Your task to perform on an android device: Open calendar and show me the second week of next month Image 0: 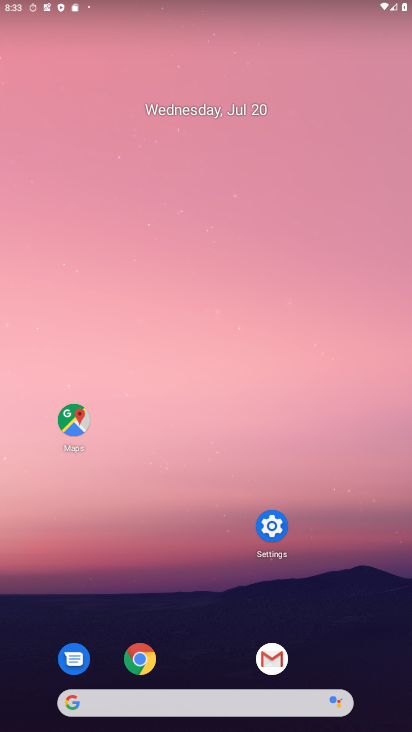
Step 0: press home button
Your task to perform on an android device: Open calendar and show me the second week of next month Image 1: 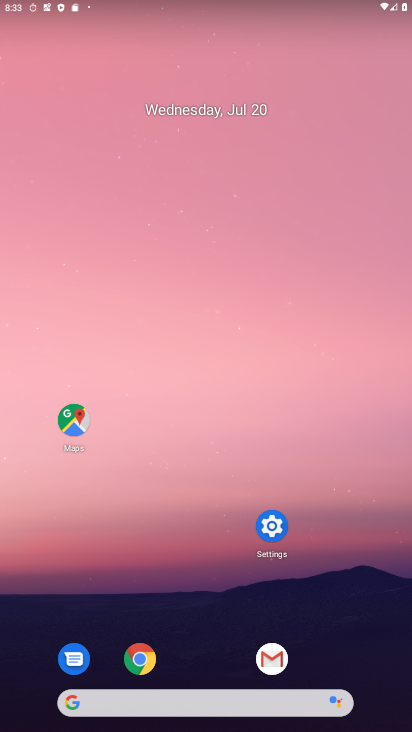
Step 1: drag from (240, 712) to (243, 149)
Your task to perform on an android device: Open calendar and show me the second week of next month Image 2: 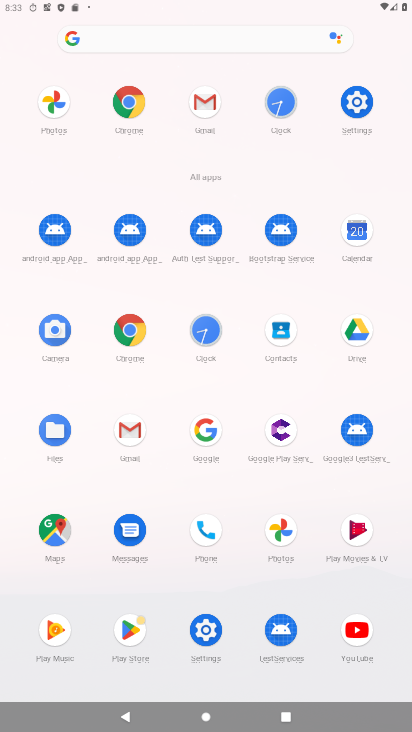
Step 2: click (358, 225)
Your task to perform on an android device: Open calendar and show me the second week of next month Image 3: 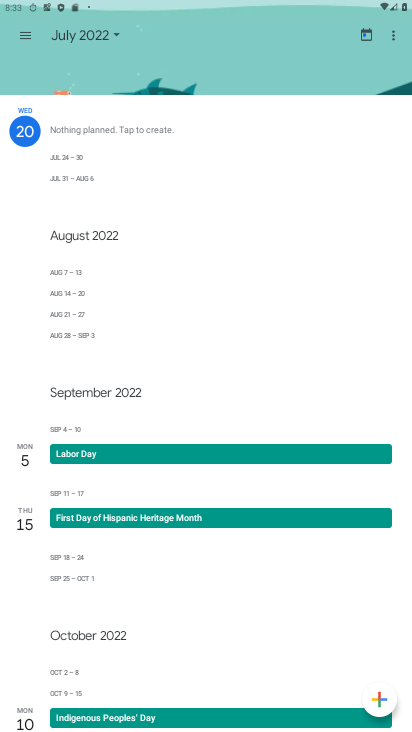
Step 3: click (18, 16)
Your task to perform on an android device: Open calendar and show me the second week of next month Image 4: 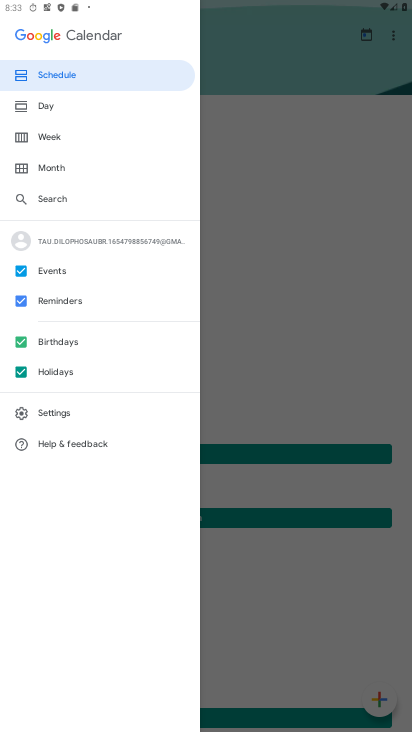
Step 4: click (37, 166)
Your task to perform on an android device: Open calendar and show me the second week of next month Image 5: 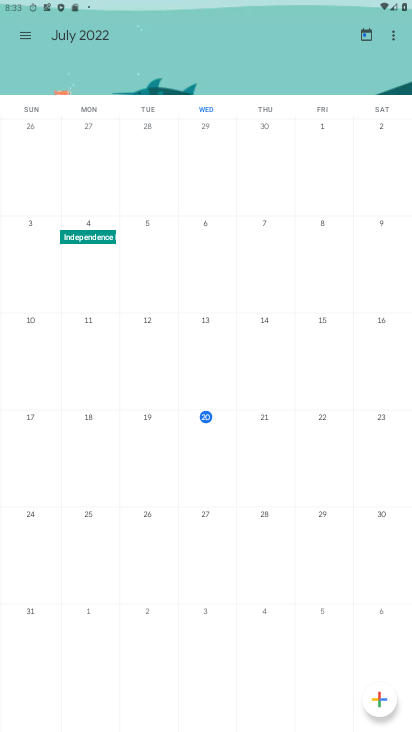
Step 5: drag from (385, 372) to (1, 402)
Your task to perform on an android device: Open calendar and show me the second week of next month Image 6: 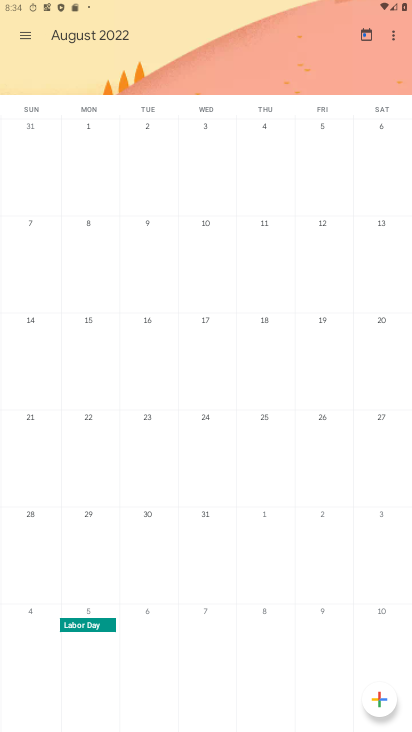
Step 6: click (88, 227)
Your task to perform on an android device: Open calendar and show me the second week of next month Image 7: 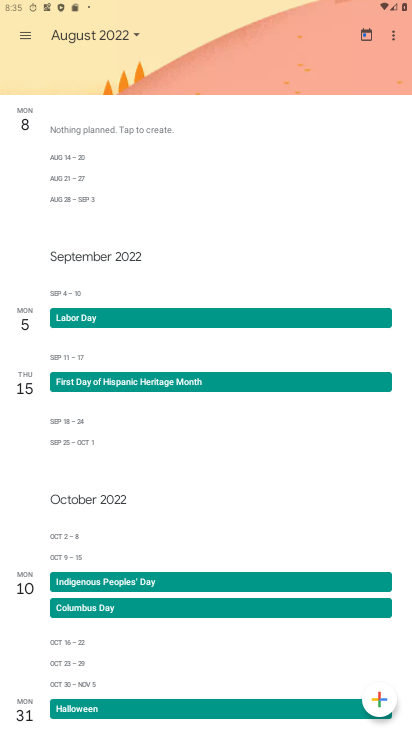
Step 7: task complete